Your task to perform on an android device: Open sound settings Image 0: 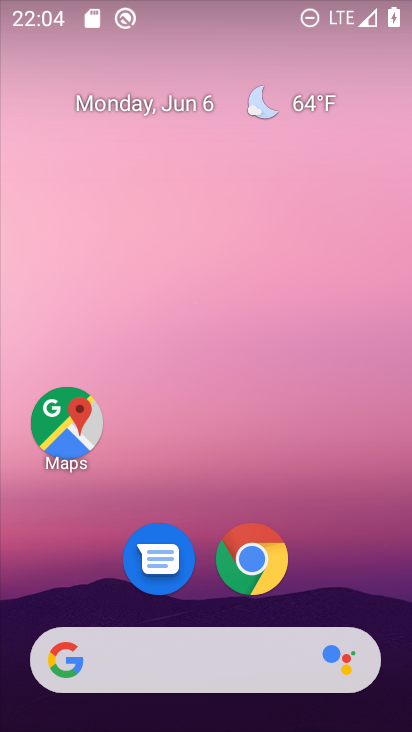
Step 0: drag from (221, 727) to (238, 82)
Your task to perform on an android device: Open sound settings Image 1: 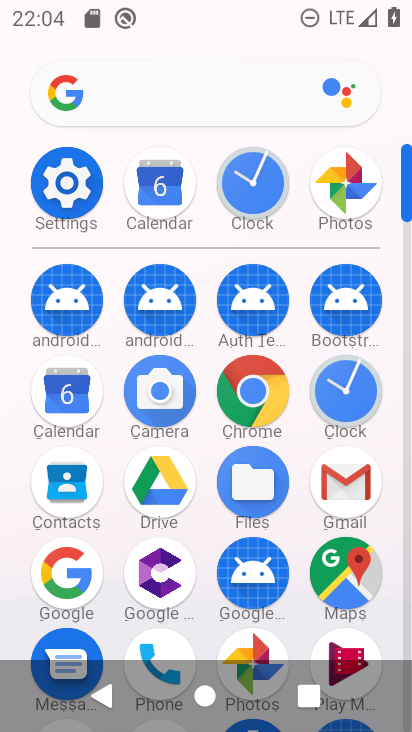
Step 1: click (81, 175)
Your task to perform on an android device: Open sound settings Image 2: 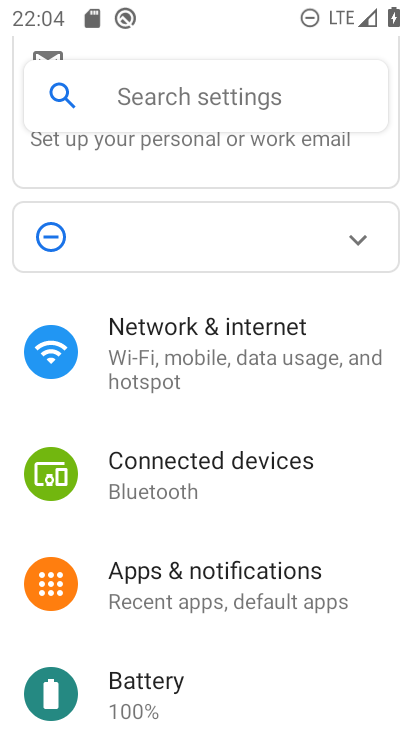
Step 2: drag from (142, 687) to (141, 374)
Your task to perform on an android device: Open sound settings Image 3: 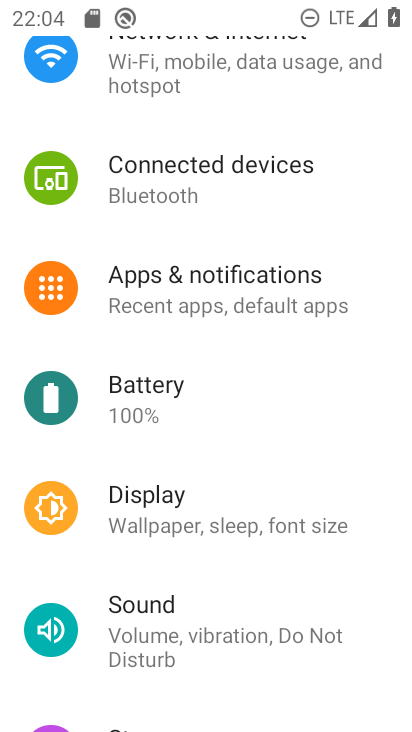
Step 3: click (154, 614)
Your task to perform on an android device: Open sound settings Image 4: 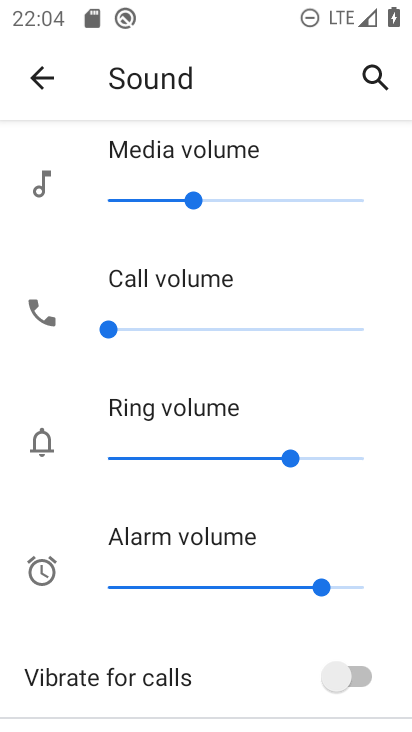
Step 4: click (166, 642)
Your task to perform on an android device: Open sound settings Image 5: 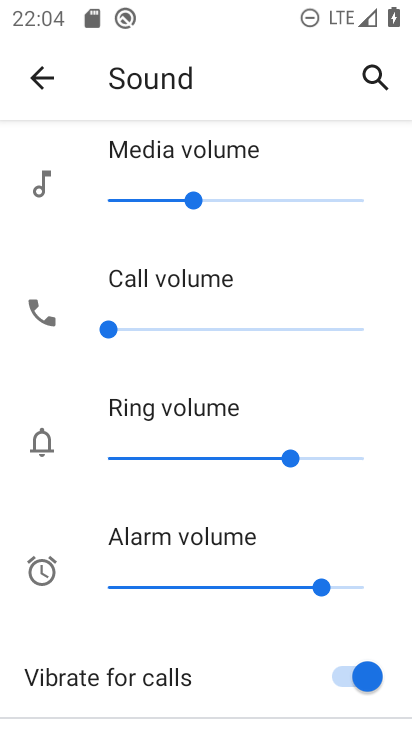
Step 5: task complete